Your task to perform on an android device: Play the last video I watched on Youtube Image 0: 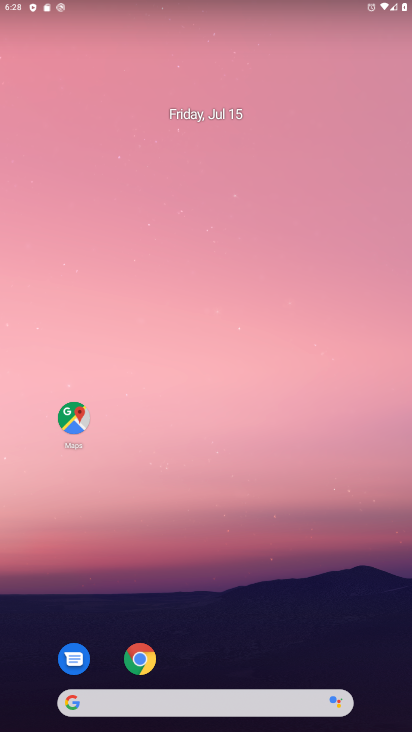
Step 0: drag from (374, 674) to (303, 104)
Your task to perform on an android device: Play the last video I watched on Youtube Image 1: 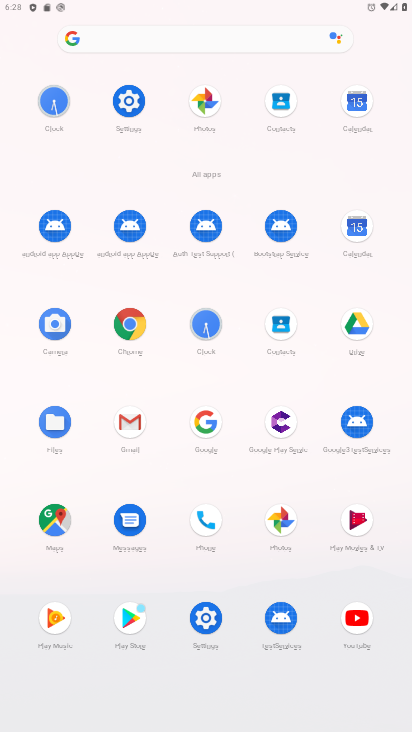
Step 1: click (356, 616)
Your task to perform on an android device: Play the last video I watched on Youtube Image 2: 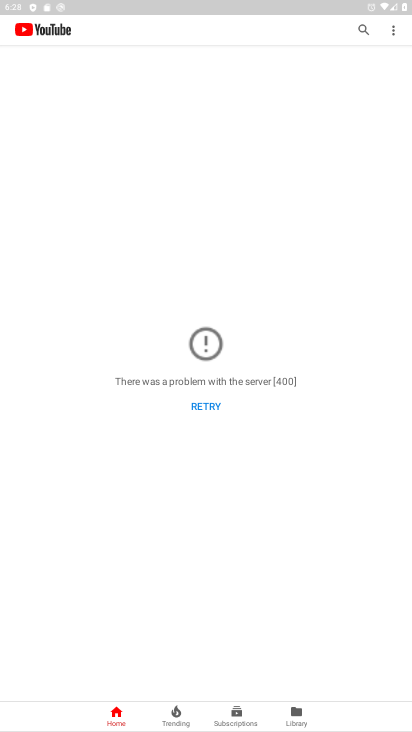
Step 2: click (290, 708)
Your task to perform on an android device: Play the last video I watched on Youtube Image 3: 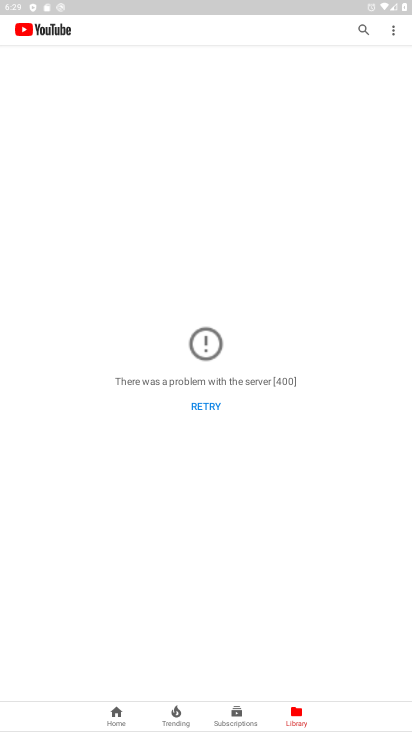
Step 3: click (207, 403)
Your task to perform on an android device: Play the last video I watched on Youtube Image 4: 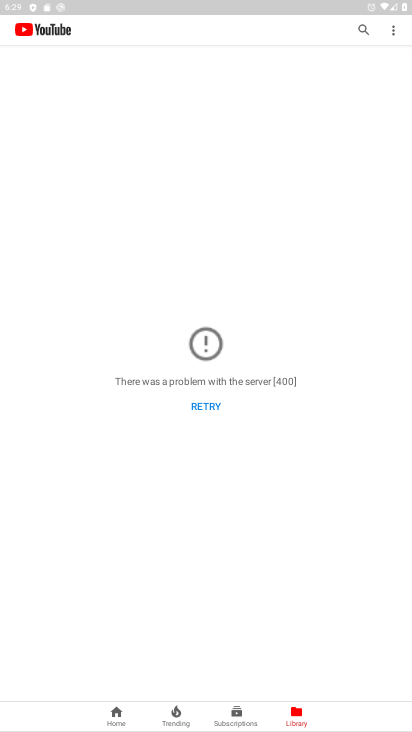
Step 4: click (207, 403)
Your task to perform on an android device: Play the last video I watched on Youtube Image 5: 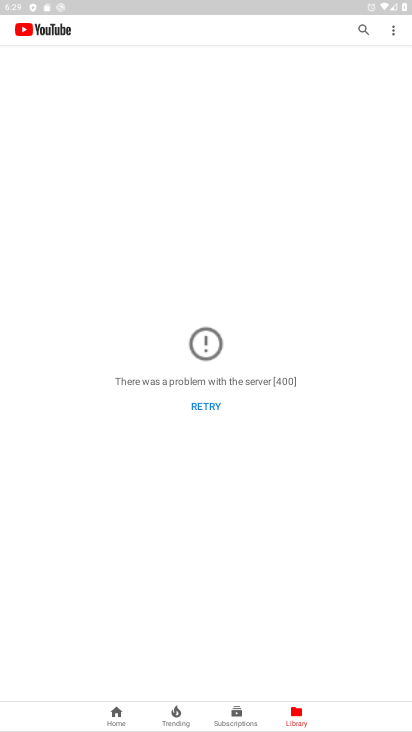
Step 5: task complete